Your task to perform on an android device: Go to location settings Image 0: 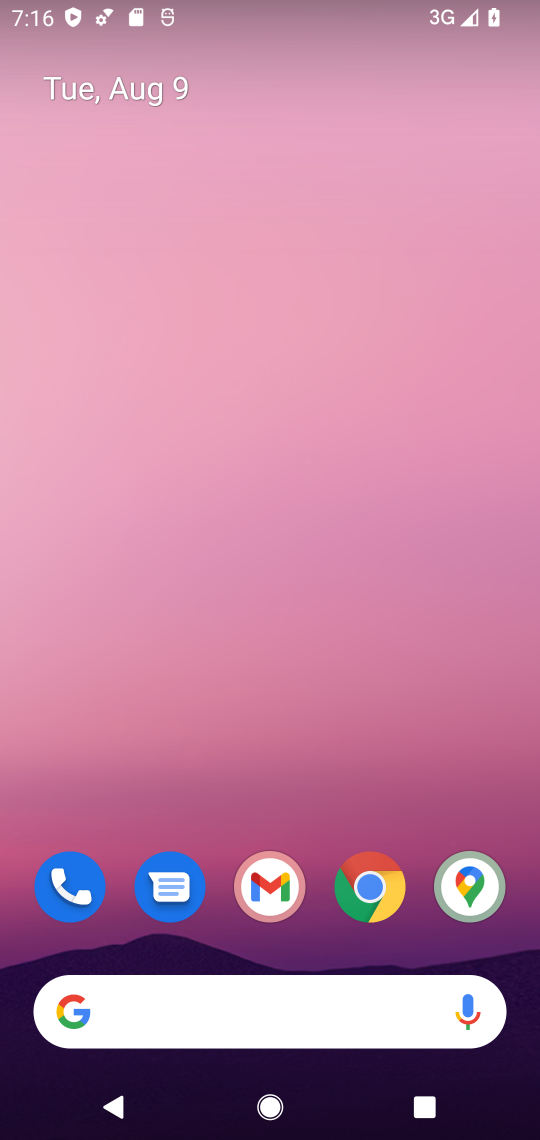
Step 0: drag from (284, 776) to (353, 2)
Your task to perform on an android device: Go to location settings Image 1: 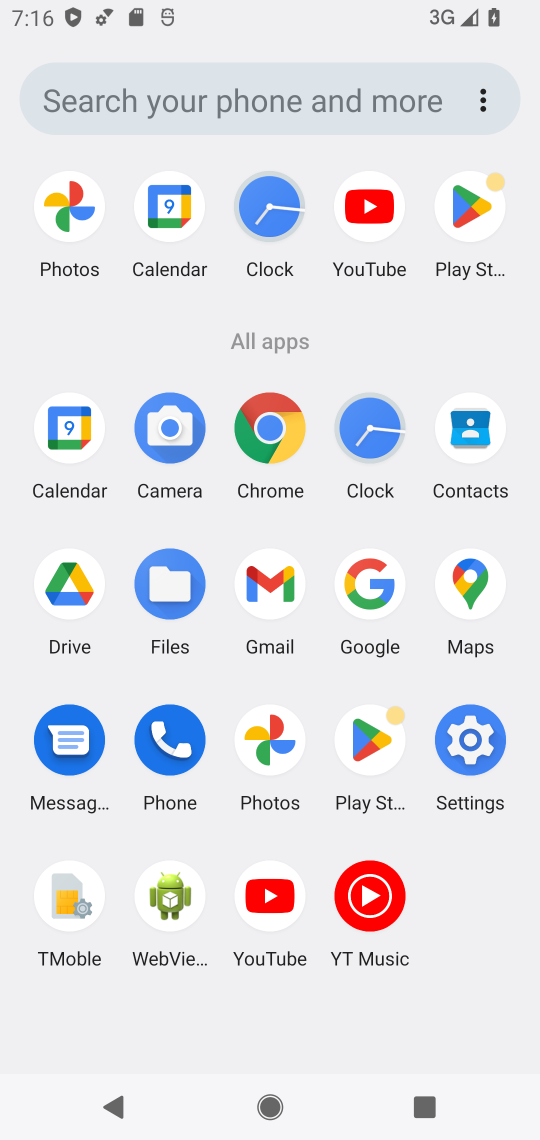
Step 1: click (471, 734)
Your task to perform on an android device: Go to location settings Image 2: 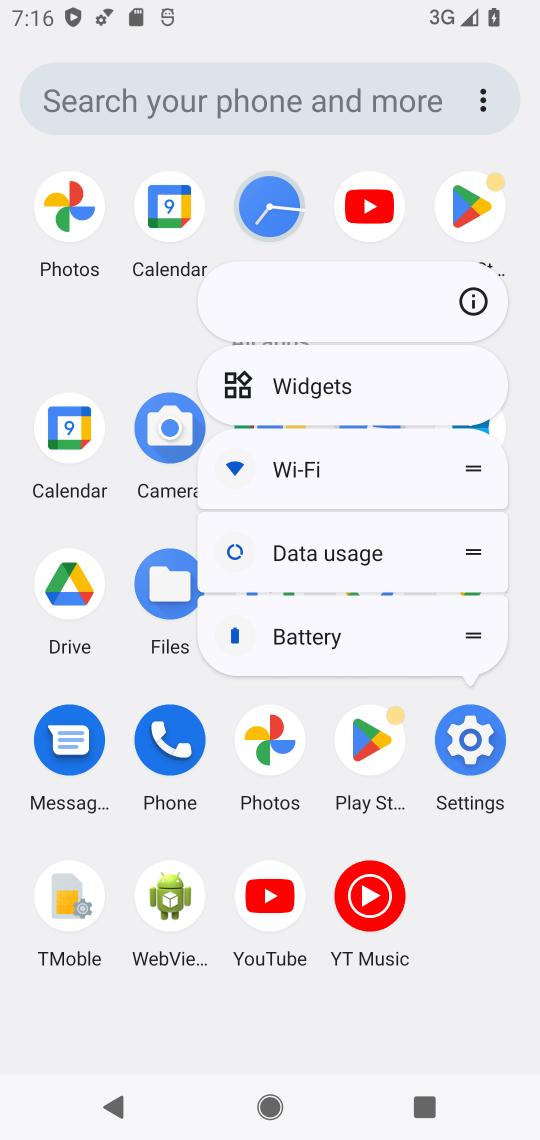
Step 2: click (471, 734)
Your task to perform on an android device: Go to location settings Image 3: 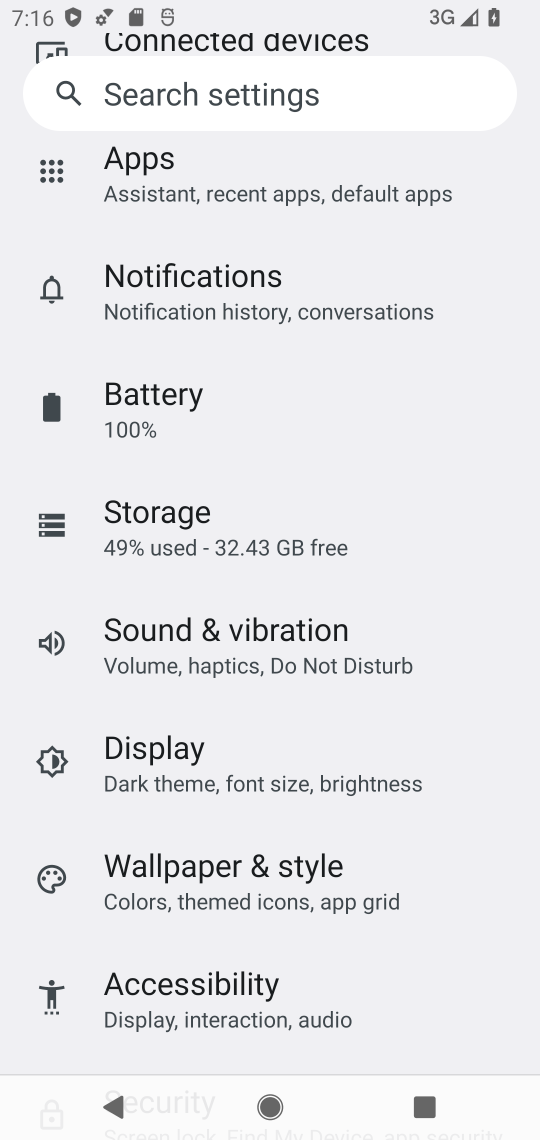
Step 3: drag from (439, 718) to (433, 56)
Your task to perform on an android device: Go to location settings Image 4: 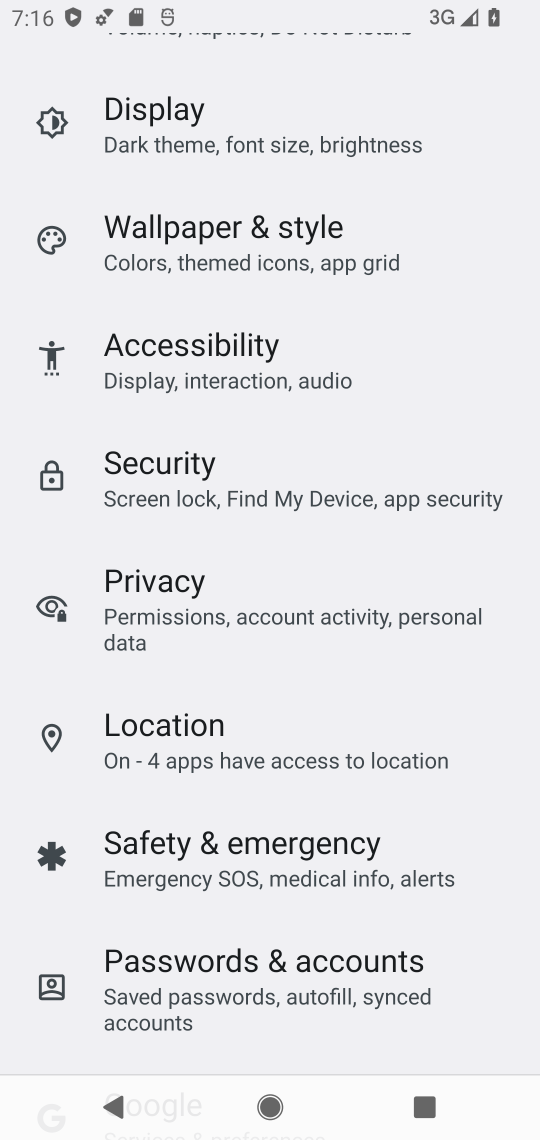
Step 4: click (309, 743)
Your task to perform on an android device: Go to location settings Image 5: 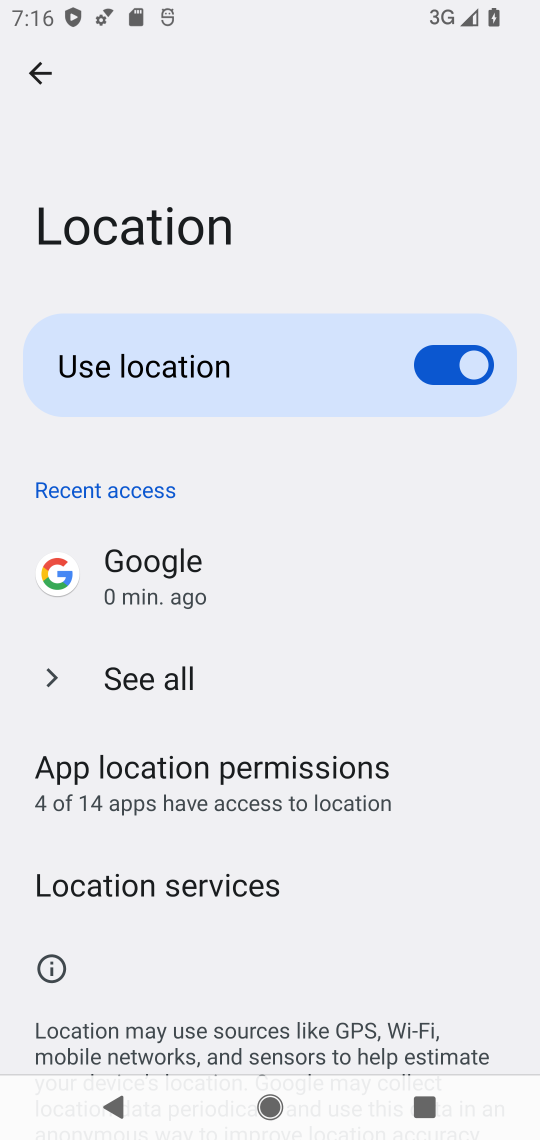
Step 5: task complete